Your task to perform on an android device: find snoozed emails in the gmail app Image 0: 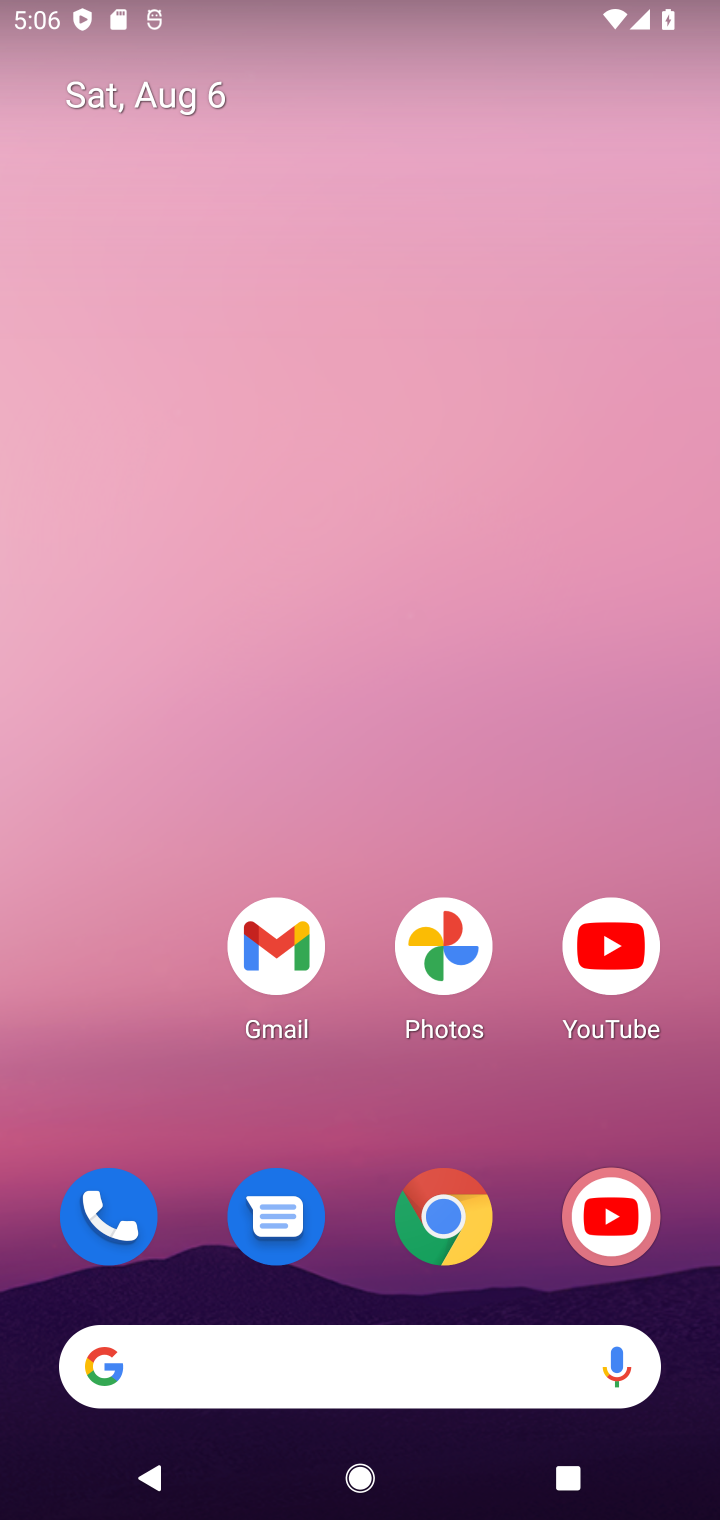
Step 0: drag from (349, 976) to (395, 8)
Your task to perform on an android device: find snoozed emails in the gmail app Image 1: 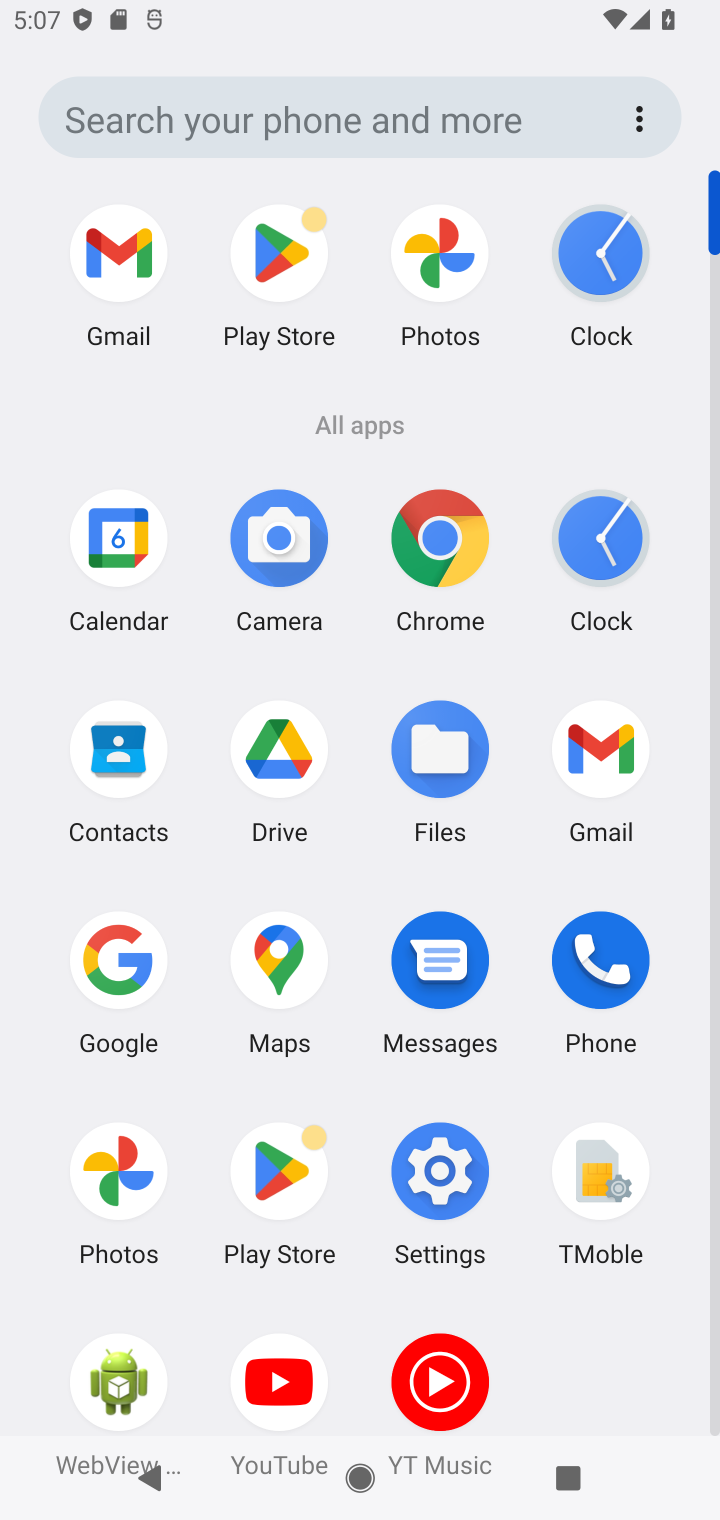
Step 1: click (583, 774)
Your task to perform on an android device: find snoozed emails in the gmail app Image 2: 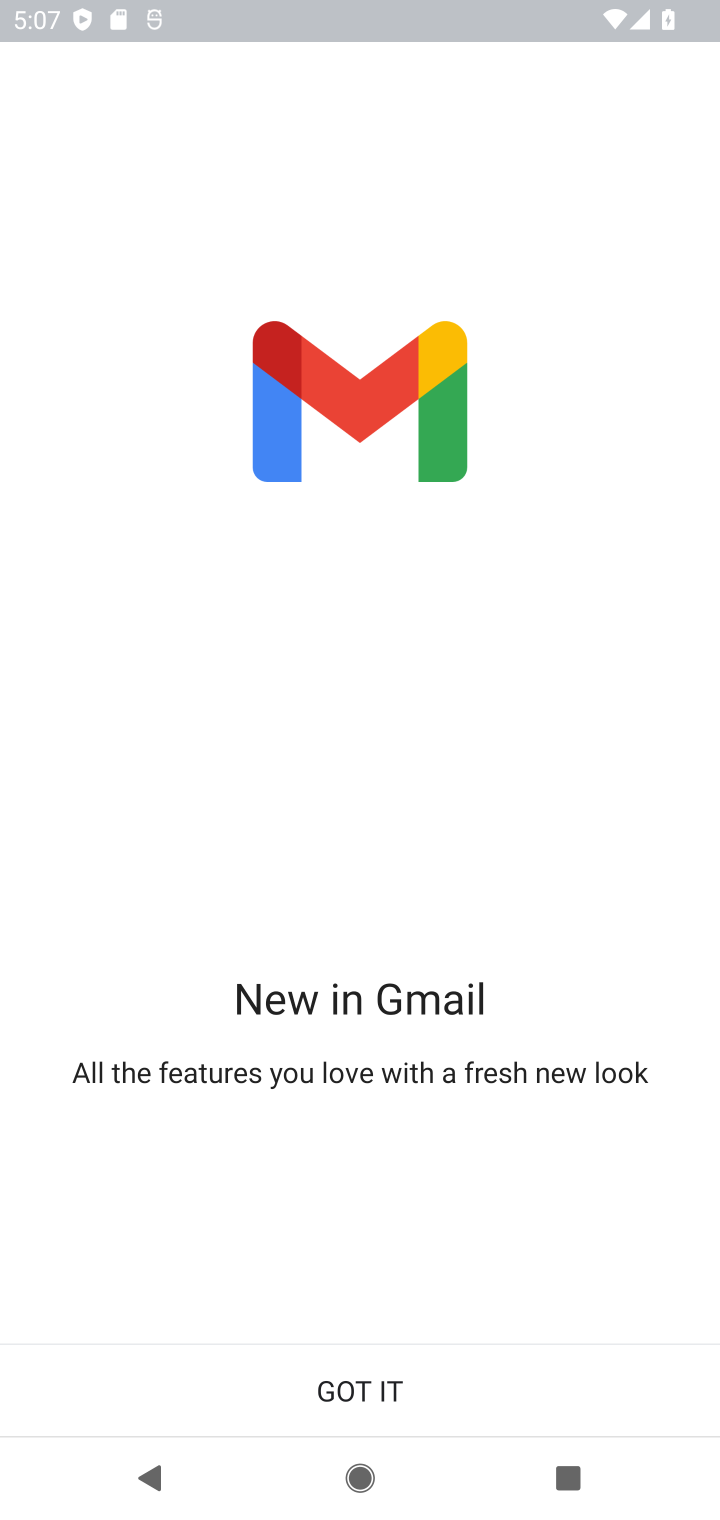
Step 2: click (380, 1405)
Your task to perform on an android device: find snoozed emails in the gmail app Image 3: 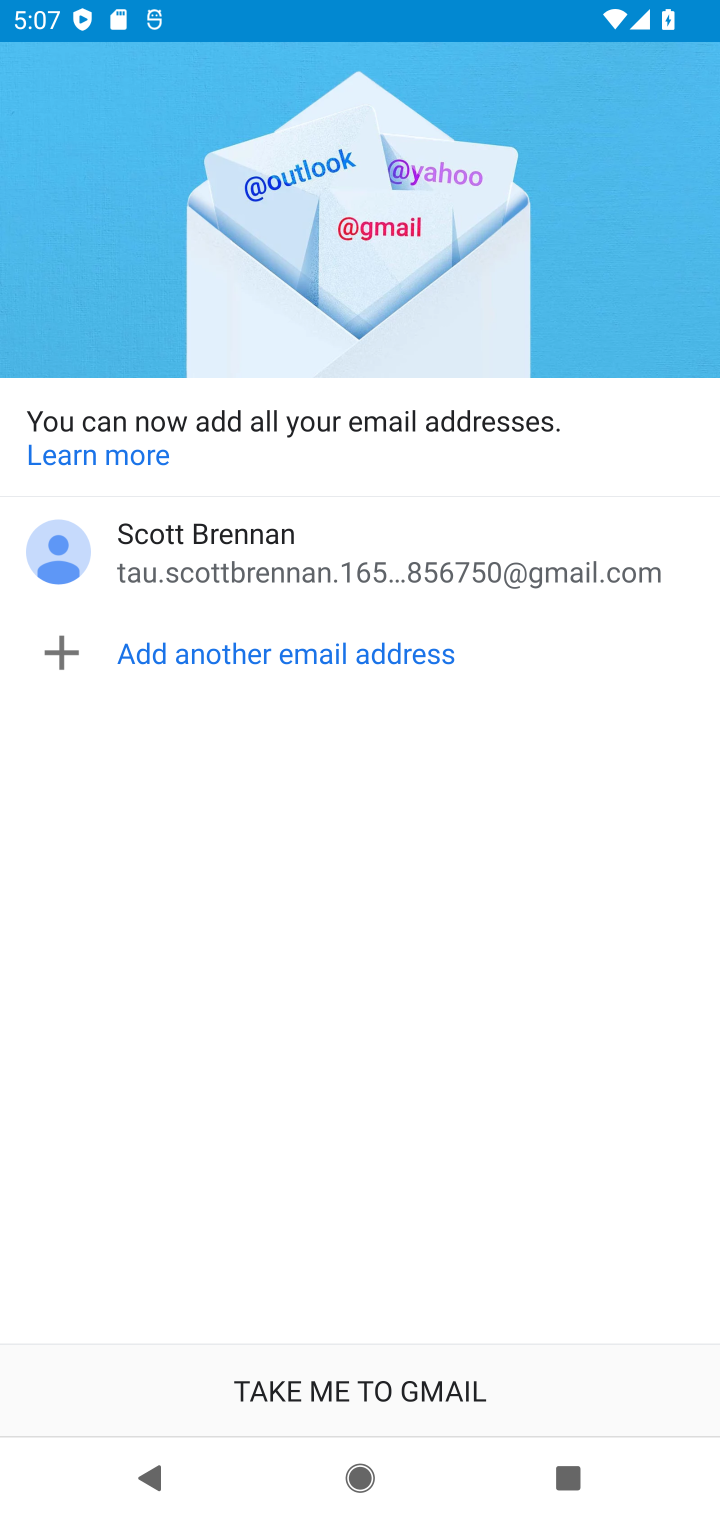
Step 3: click (376, 1380)
Your task to perform on an android device: find snoozed emails in the gmail app Image 4: 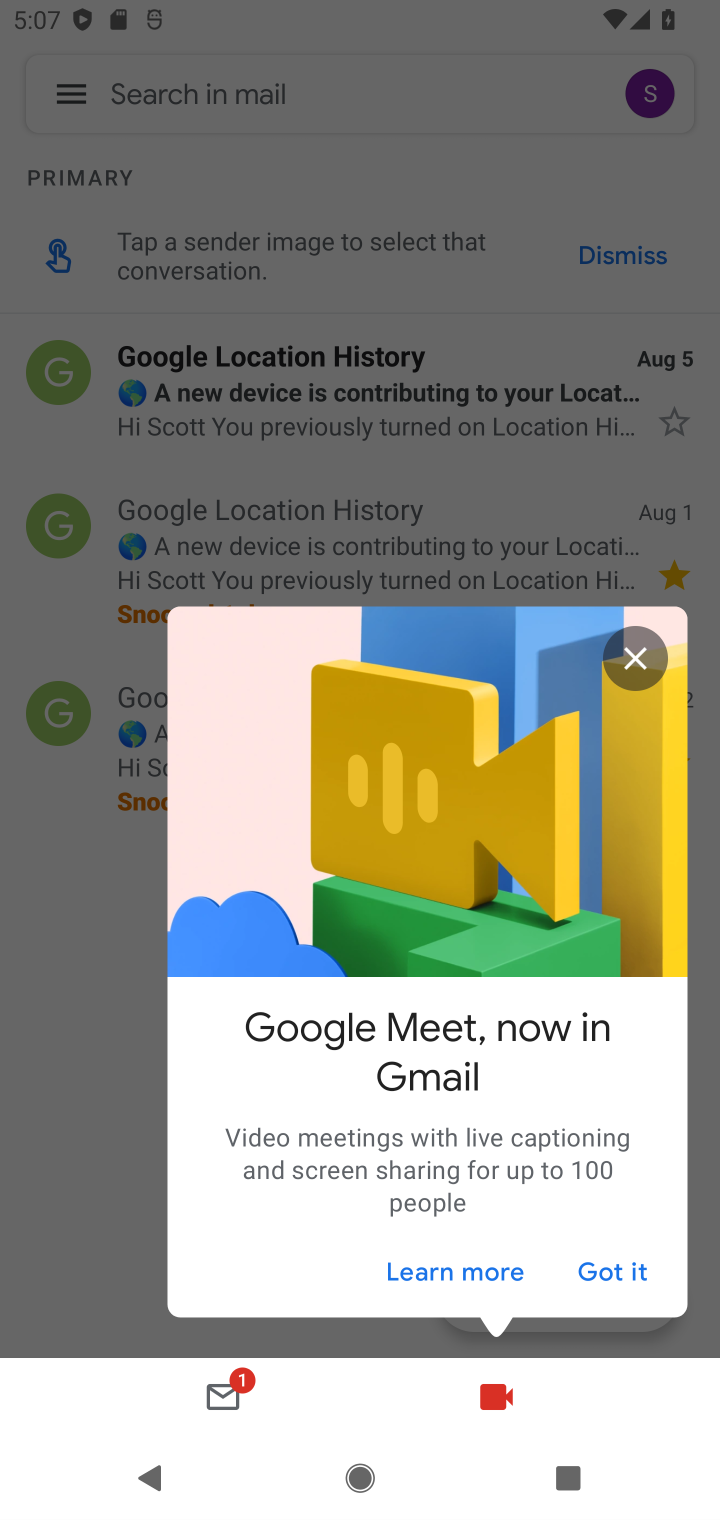
Step 4: click (612, 1280)
Your task to perform on an android device: find snoozed emails in the gmail app Image 5: 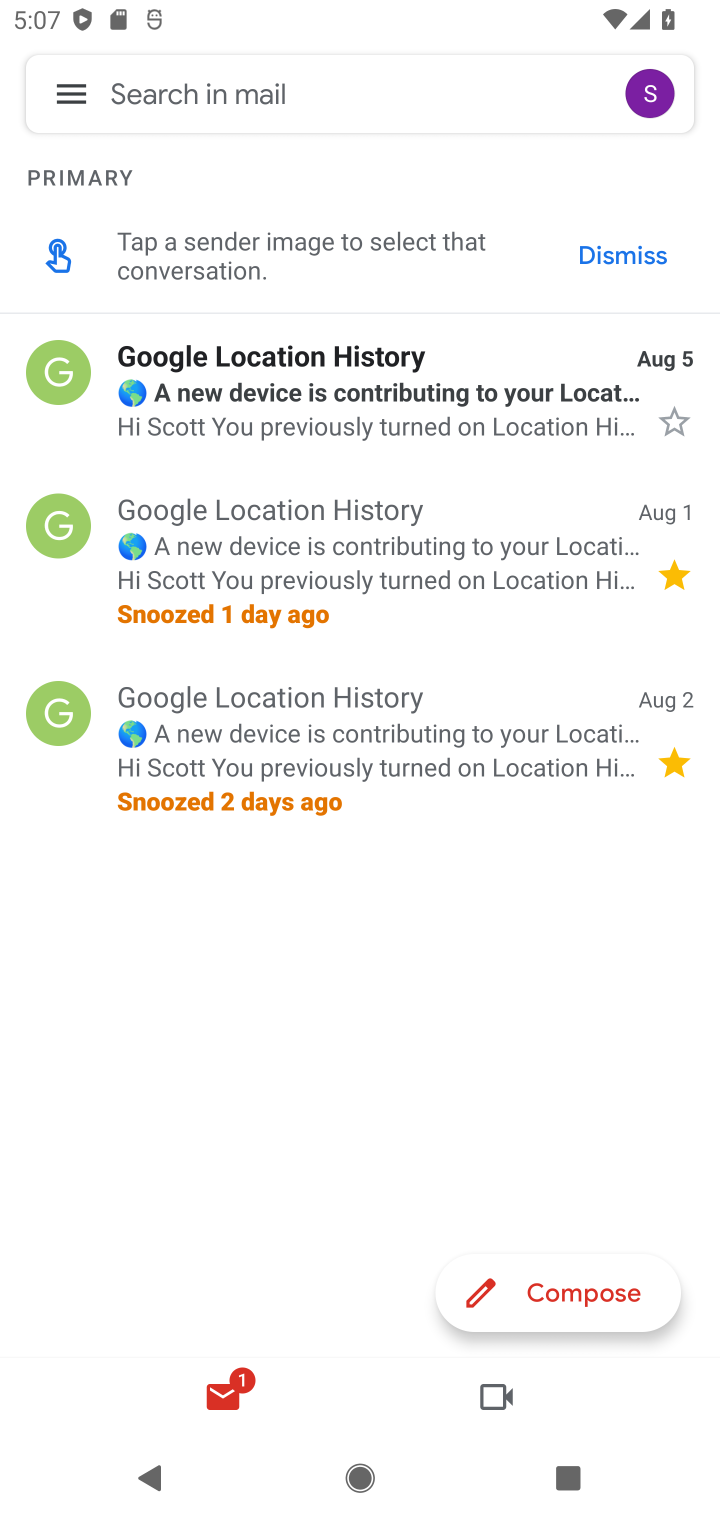
Step 5: click (71, 101)
Your task to perform on an android device: find snoozed emails in the gmail app Image 6: 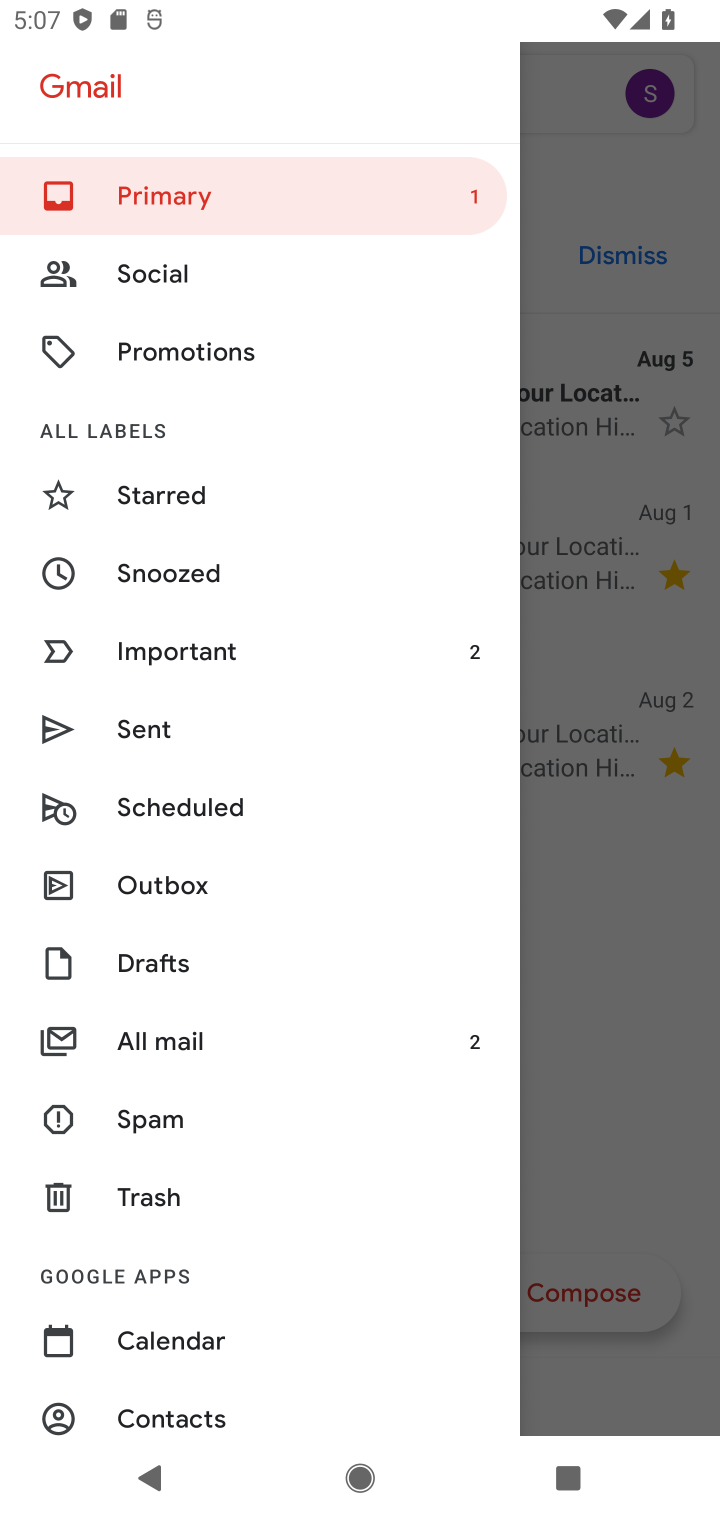
Step 6: click (166, 589)
Your task to perform on an android device: find snoozed emails in the gmail app Image 7: 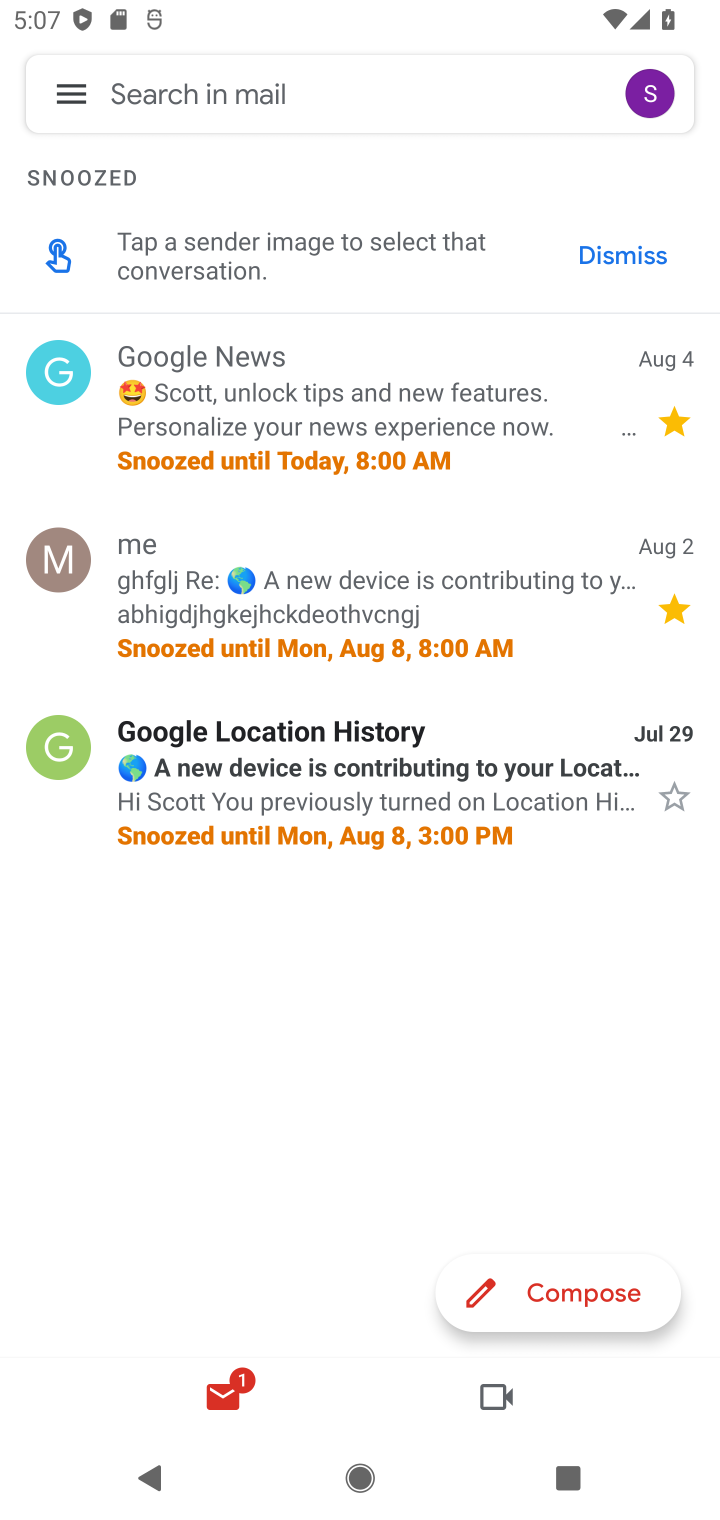
Step 7: task complete